Your task to perform on an android device: add a contact in the contacts app Image 0: 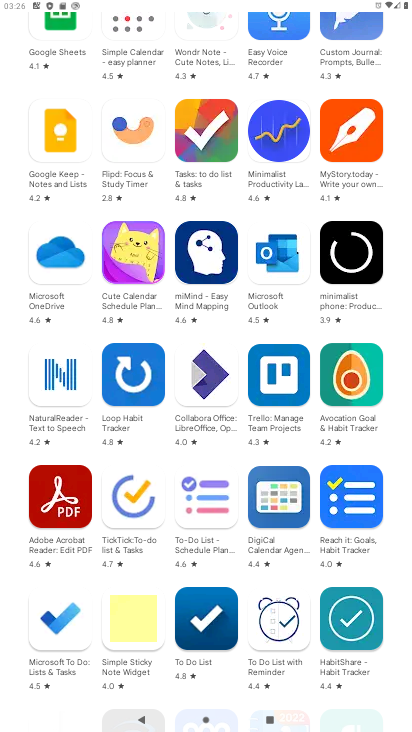
Step 0: press home button
Your task to perform on an android device: add a contact in the contacts app Image 1: 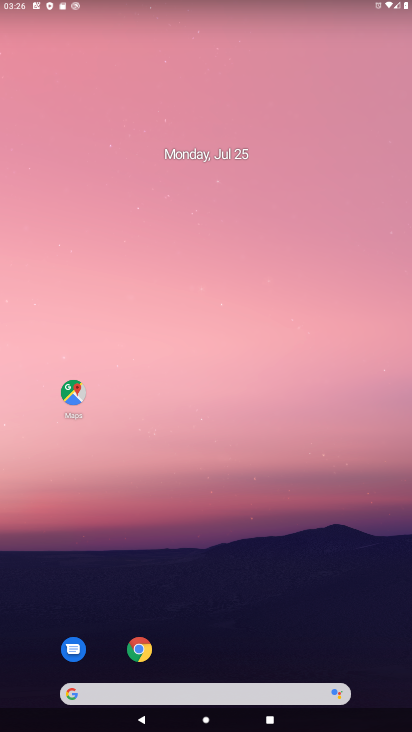
Step 1: drag from (389, 649) to (311, 209)
Your task to perform on an android device: add a contact in the contacts app Image 2: 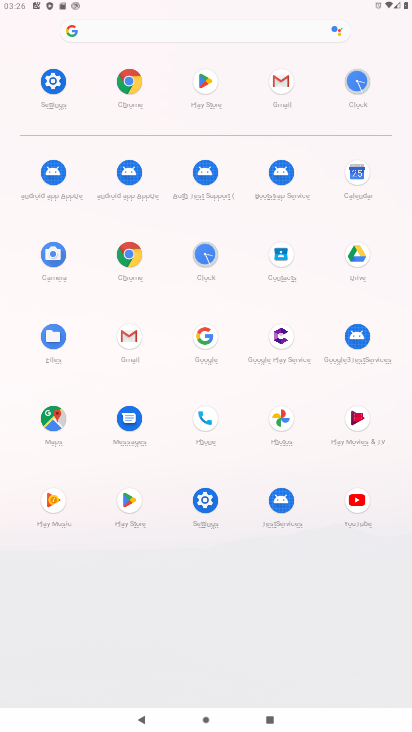
Step 2: click (279, 256)
Your task to perform on an android device: add a contact in the contacts app Image 3: 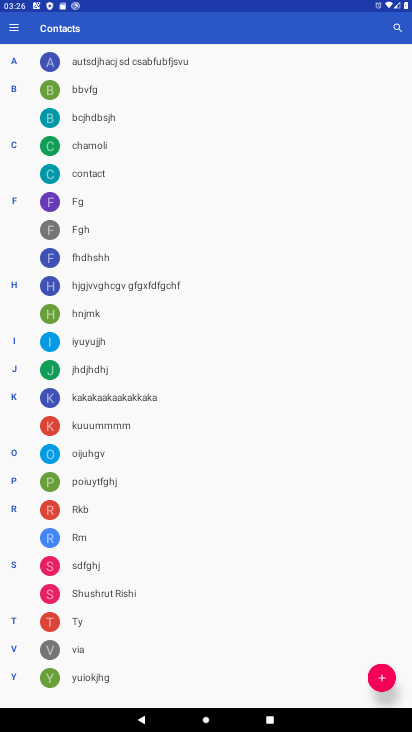
Step 3: click (380, 680)
Your task to perform on an android device: add a contact in the contacts app Image 4: 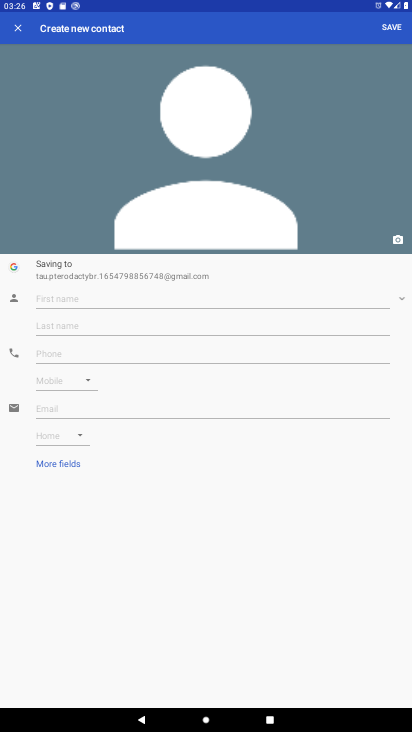
Step 4: click (101, 299)
Your task to perform on an android device: add a contact in the contacts app Image 5: 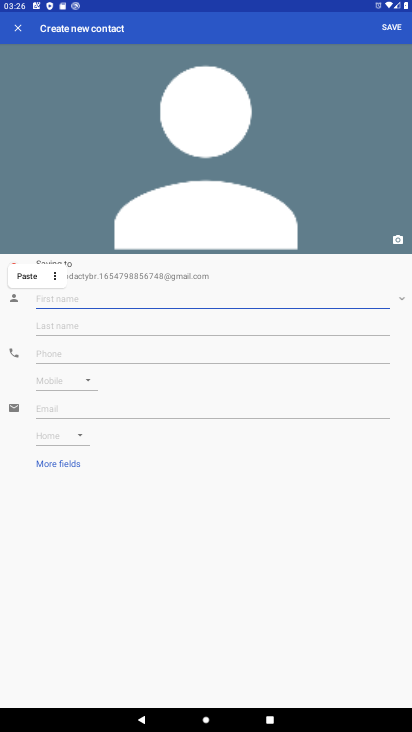
Step 5: type "khjkjb"
Your task to perform on an android device: add a contact in the contacts app Image 6: 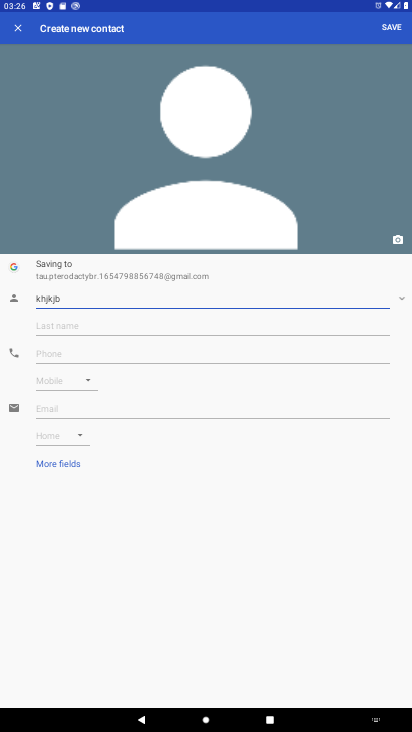
Step 6: click (51, 351)
Your task to perform on an android device: add a contact in the contacts app Image 7: 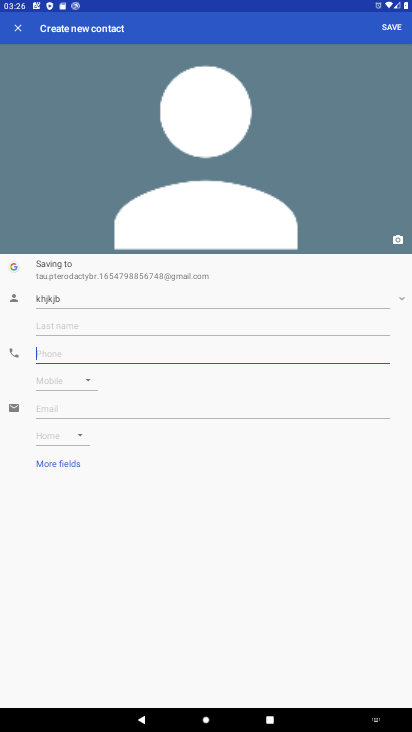
Step 7: type "0987643665"
Your task to perform on an android device: add a contact in the contacts app Image 8: 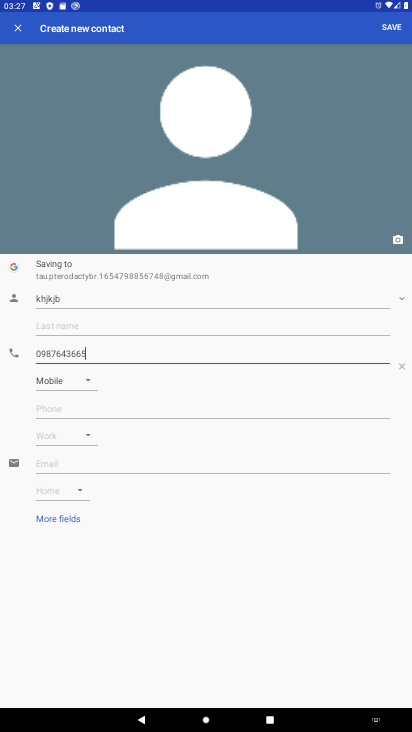
Step 8: click (391, 25)
Your task to perform on an android device: add a contact in the contacts app Image 9: 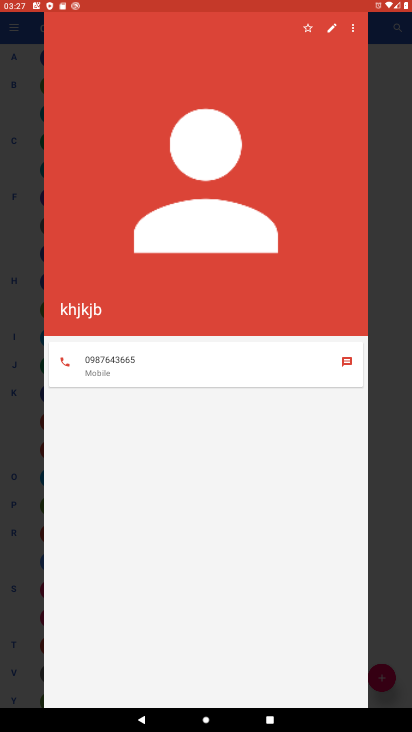
Step 9: task complete